Your task to perform on an android device: Go to sound settings Image 0: 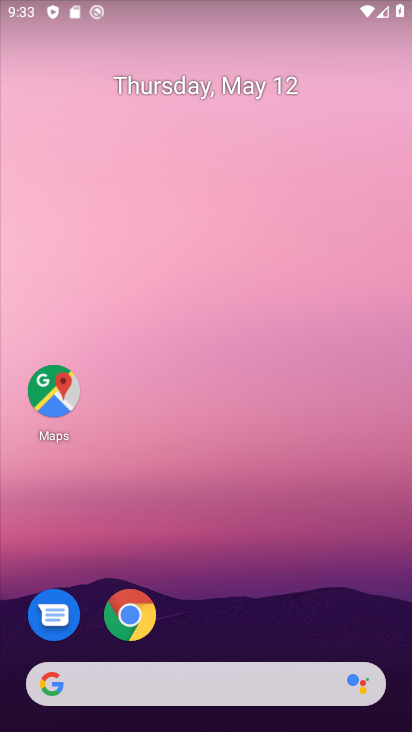
Step 0: drag from (215, 729) to (218, 198)
Your task to perform on an android device: Go to sound settings Image 1: 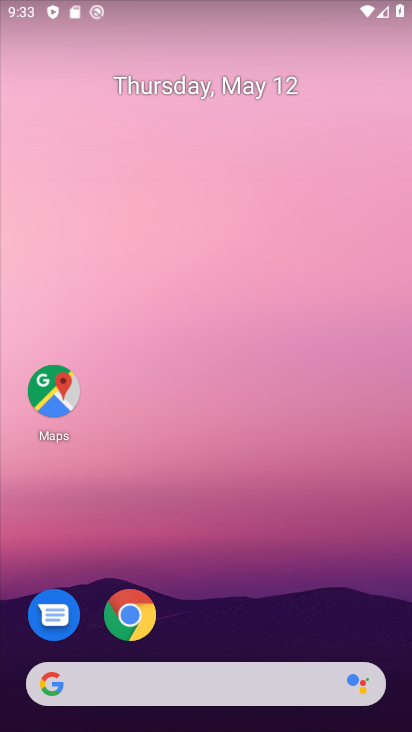
Step 1: drag from (213, 719) to (216, 0)
Your task to perform on an android device: Go to sound settings Image 2: 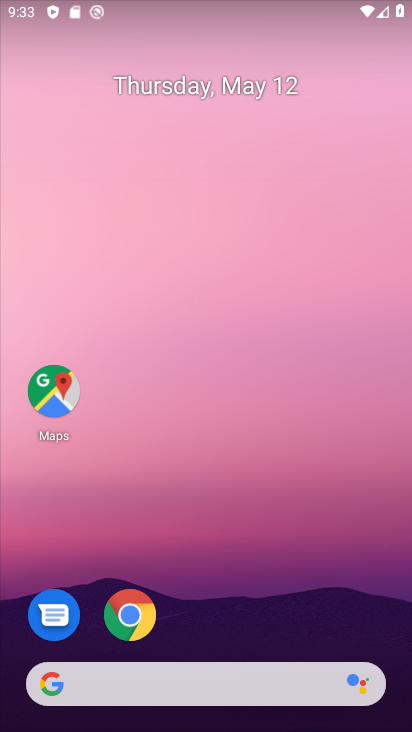
Step 2: drag from (211, 725) to (238, 72)
Your task to perform on an android device: Go to sound settings Image 3: 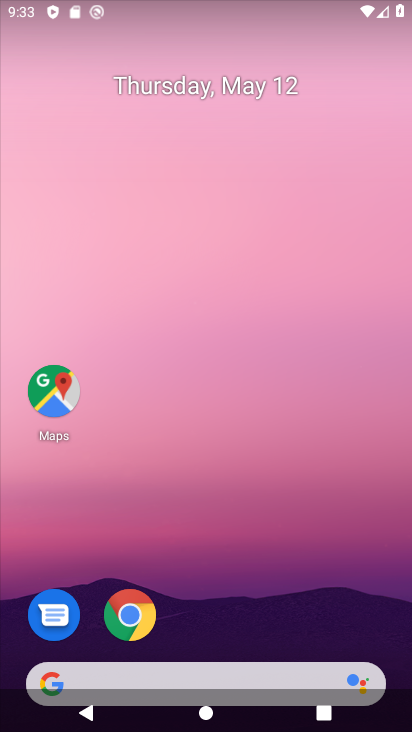
Step 3: drag from (192, 726) to (192, 1)
Your task to perform on an android device: Go to sound settings Image 4: 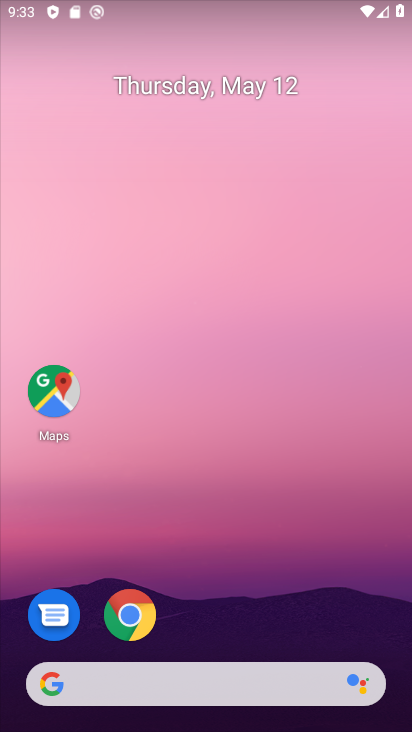
Step 4: drag from (232, 726) to (239, 0)
Your task to perform on an android device: Go to sound settings Image 5: 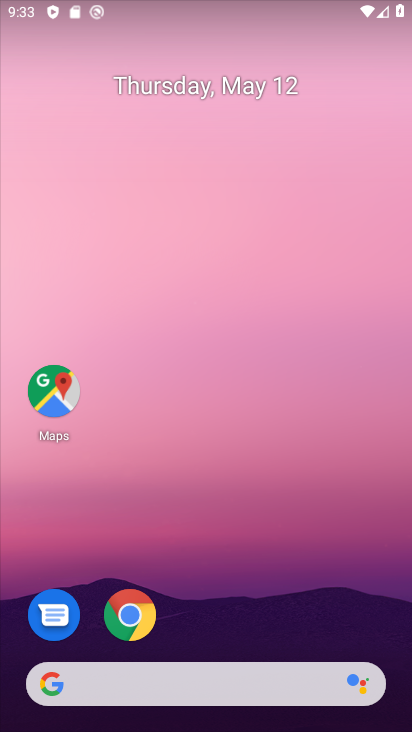
Step 5: drag from (222, 730) to (246, 7)
Your task to perform on an android device: Go to sound settings Image 6: 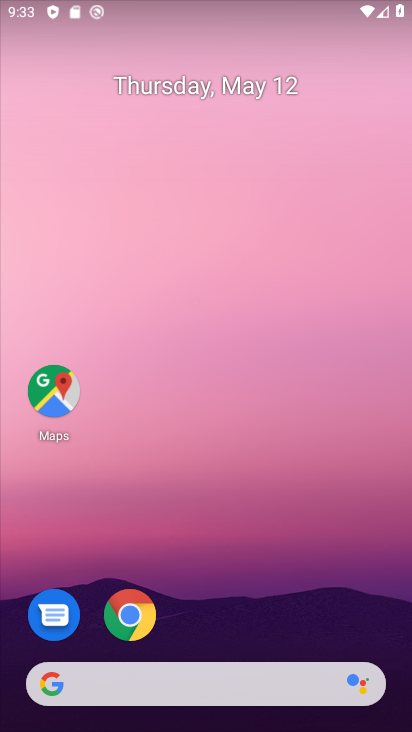
Step 6: drag from (223, 721) to (245, 18)
Your task to perform on an android device: Go to sound settings Image 7: 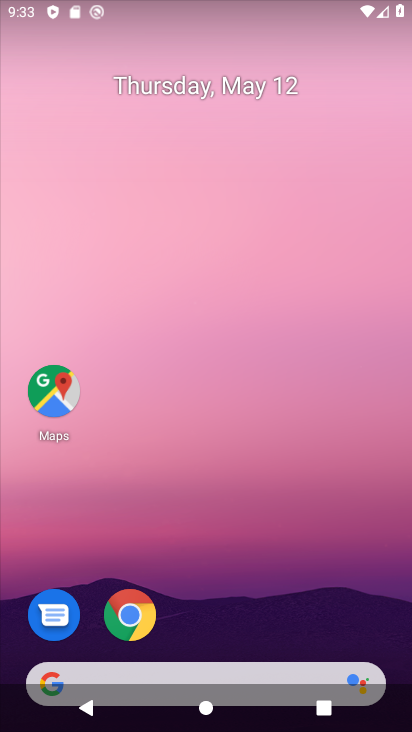
Step 7: drag from (237, 655) to (244, 27)
Your task to perform on an android device: Go to sound settings Image 8: 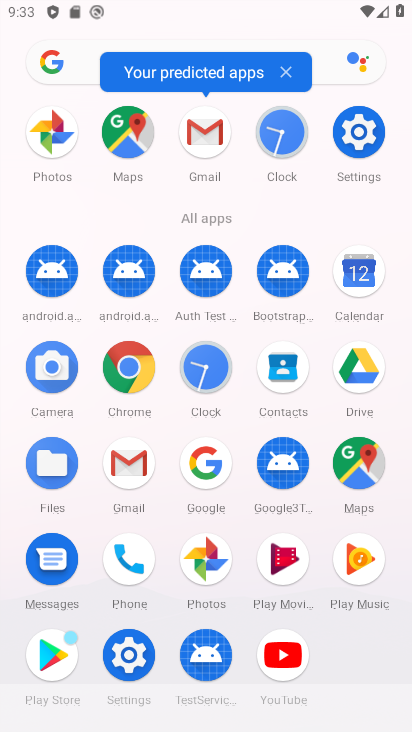
Step 8: click (358, 128)
Your task to perform on an android device: Go to sound settings Image 9: 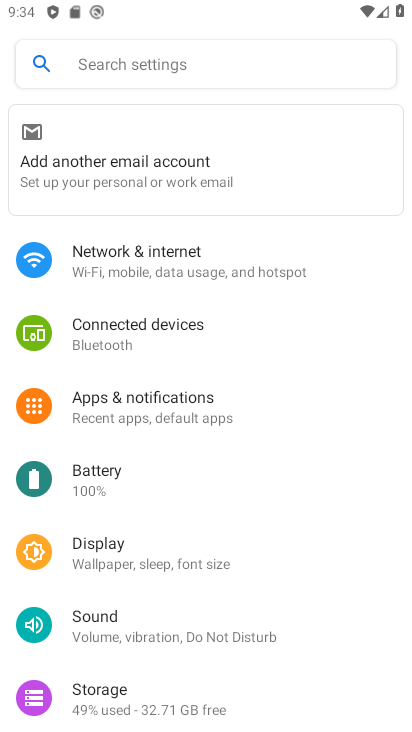
Step 9: click (143, 626)
Your task to perform on an android device: Go to sound settings Image 10: 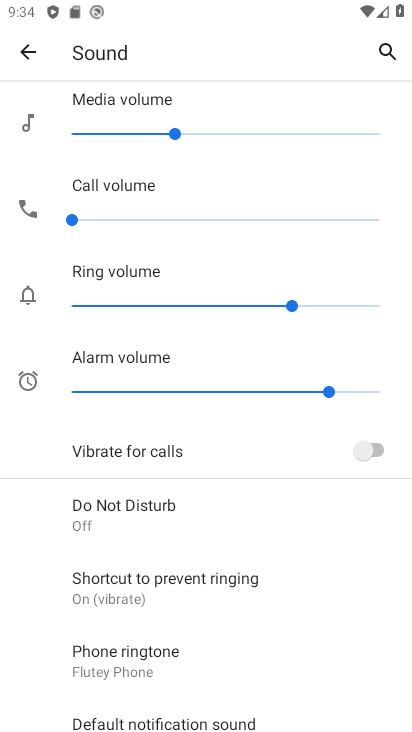
Step 10: task complete